Your task to perform on an android device: Open sound settings Image 0: 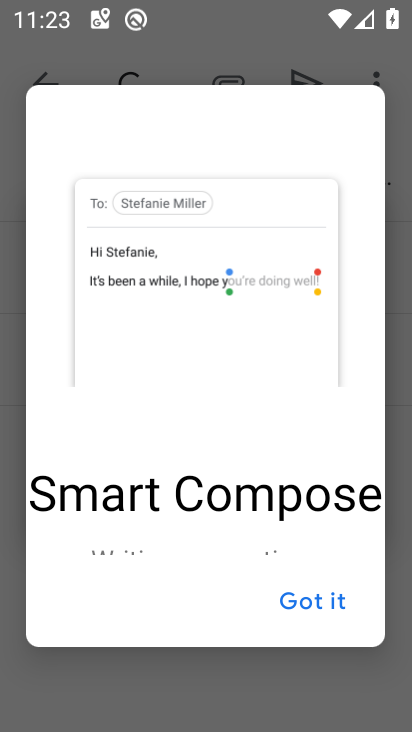
Step 0: press home button
Your task to perform on an android device: Open sound settings Image 1: 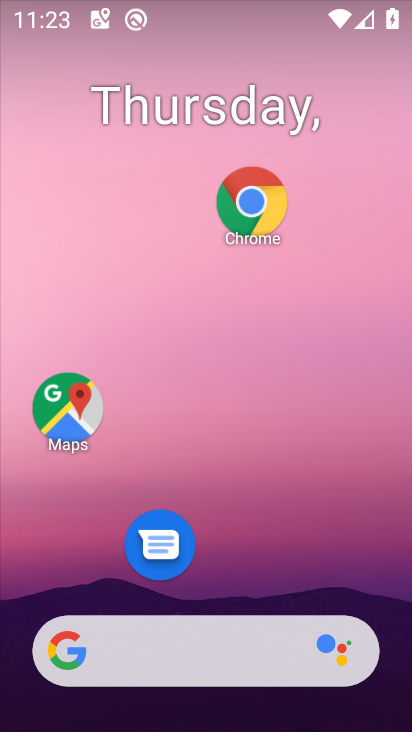
Step 1: drag from (267, 587) to (65, 4)
Your task to perform on an android device: Open sound settings Image 2: 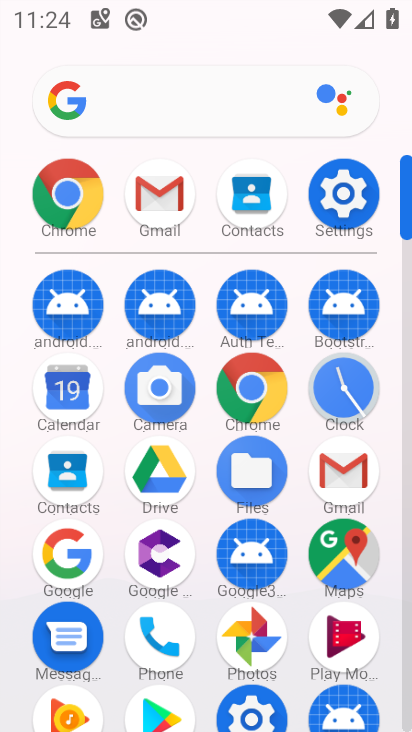
Step 2: click (351, 216)
Your task to perform on an android device: Open sound settings Image 3: 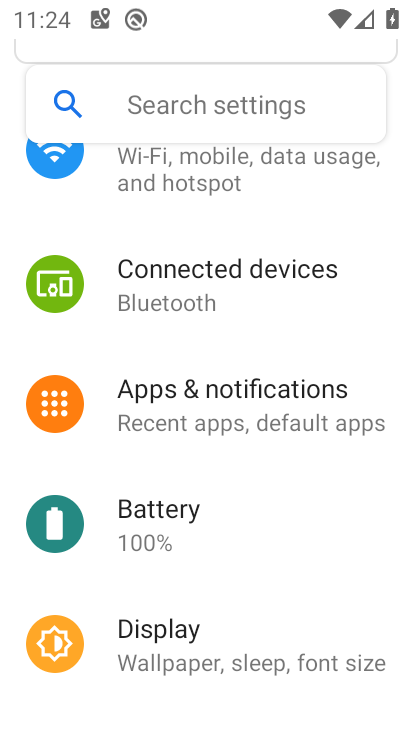
Step 3: drag from (172, 611) to (148, 234)
Your task to perform on an android device: Open sound settings Image 4: 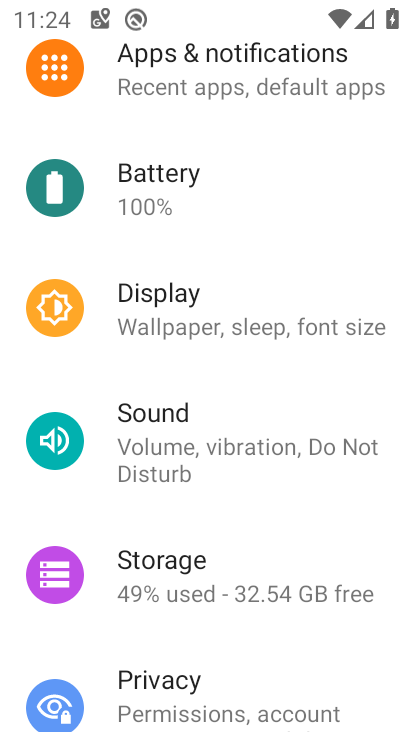
Step 4: click (152, 435)
Your task to perform on an android device: Open sound settings Image 5: 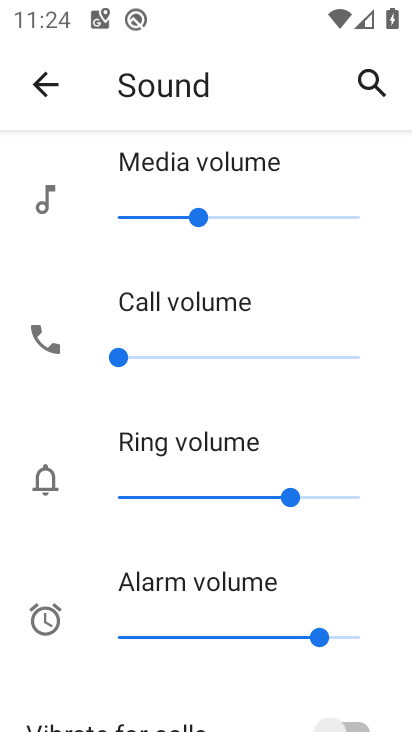
Step 5: task complete